Your task to perform on an android device: search for starred emails in the gmail app Image 0: 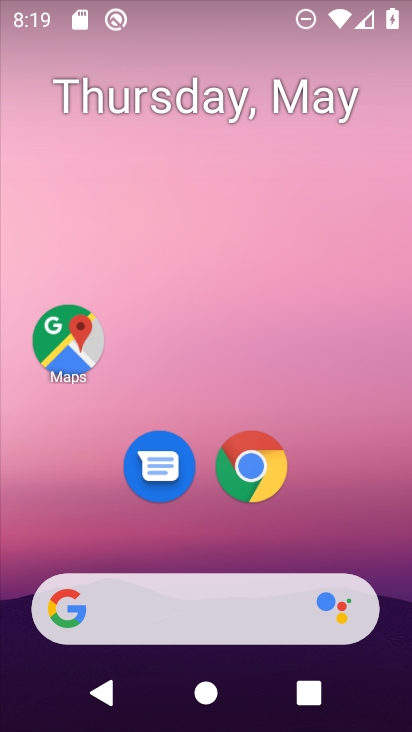
Step 0: drag from (168, 598) to (192, 59)
Your task to perform on an android device: search for starred emails in the gmail app Image 1: 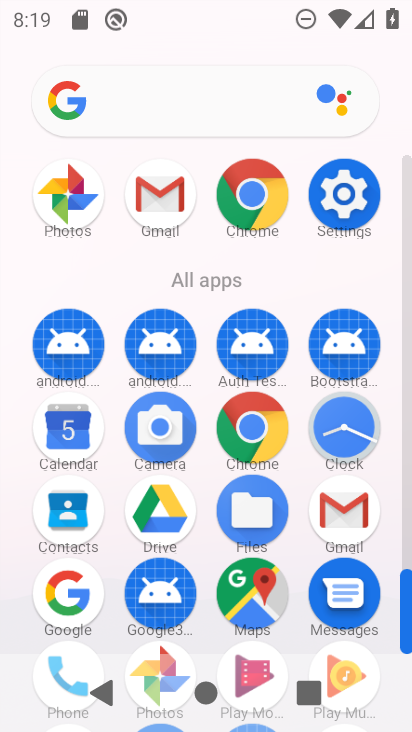
Step 1: click (160, 220)
Your task to perform on an android device: search for starred emails in the gmail app Image 2: 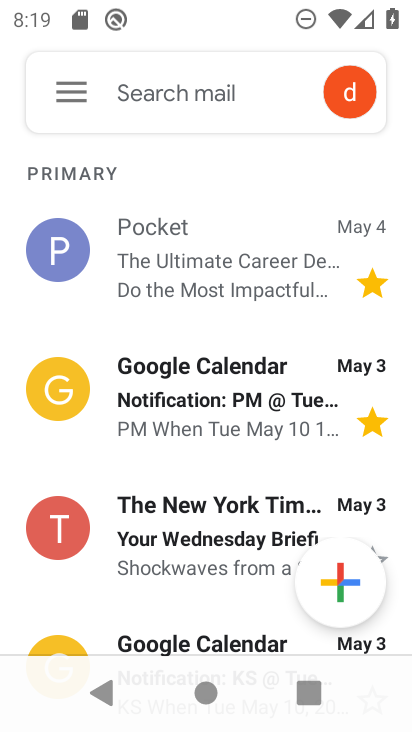
Step 2: click (76, 111)
Your task to perform on an android device: search for starred emails in the gmail app Image 3: 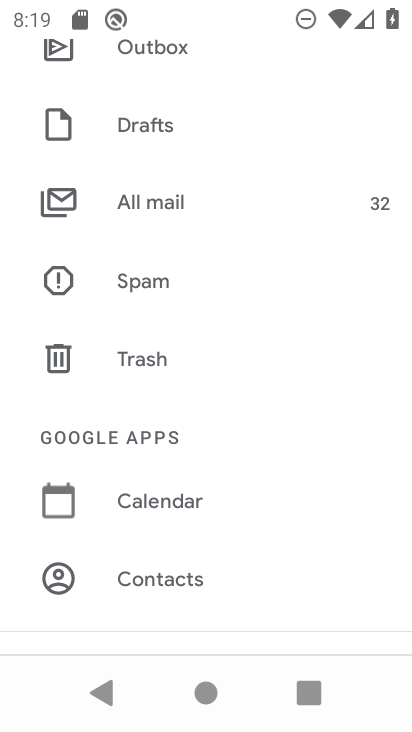
Step 3: drag from (247, 277) to (246, 618)
Your task to perform on an android device: search for starred emails in the gmail app Image 4: 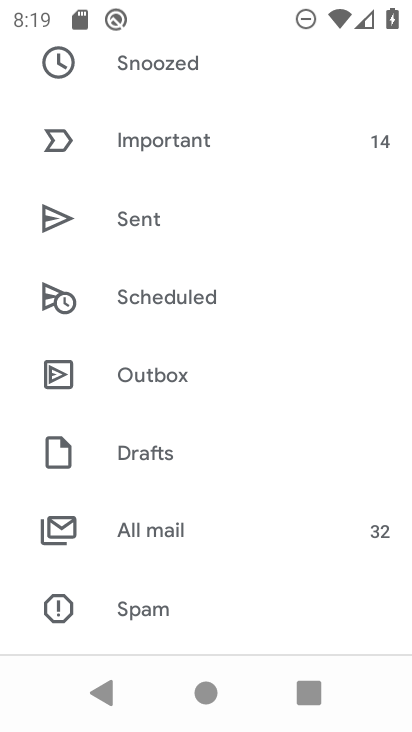
Step 4: drag from (184, 369) to (279, 659)
Your task to perform on an android device: search for starred emails in the gmail app Image 5: 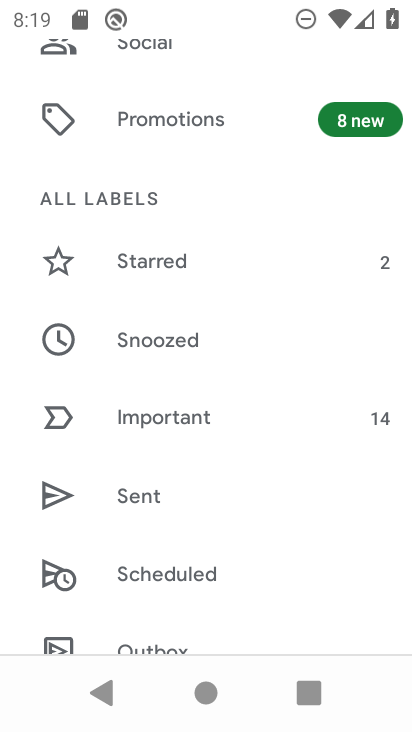
Step 5: drag from (258, 154) to (267, 438)
Your task to perform on an android device: search for starred emails in the gmail app Image 6: 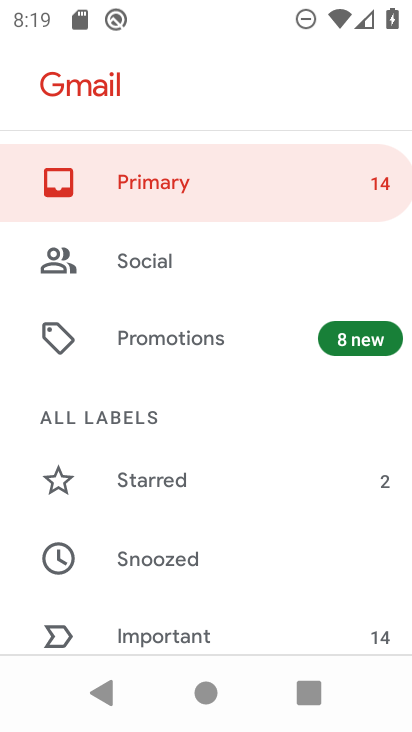
Step 6: click (176, 472)
Your task to perform on an android device: search for starred emails in the gmail app Image 7: 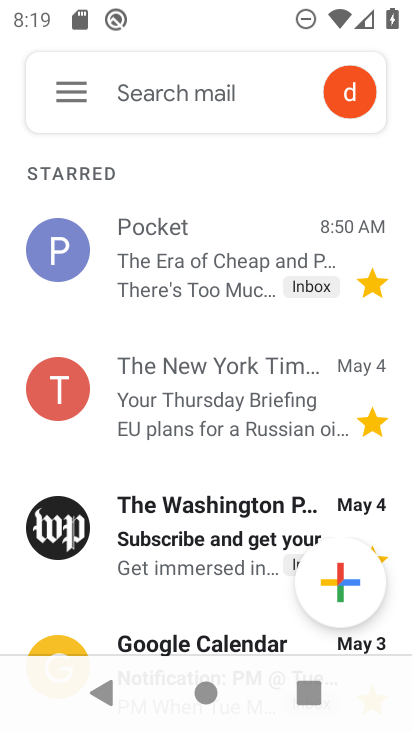
Step 7: click (72, 100)
Your task to perform on an android device: search for starred emails in the gmail app Image 8: 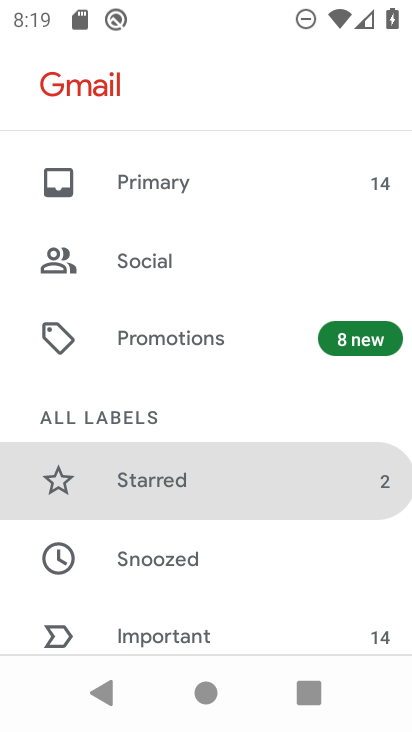
Step 8: click (221, 479)
Your task to perform on an android device: search for starred emails in the gmail app Image 9: 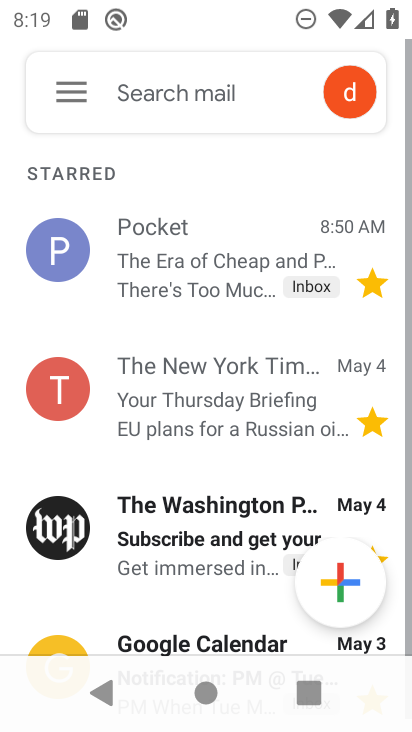
Step 9: task complete